Your task to perform on an android device: Search for Mexican restaurants on Maps Image 0: 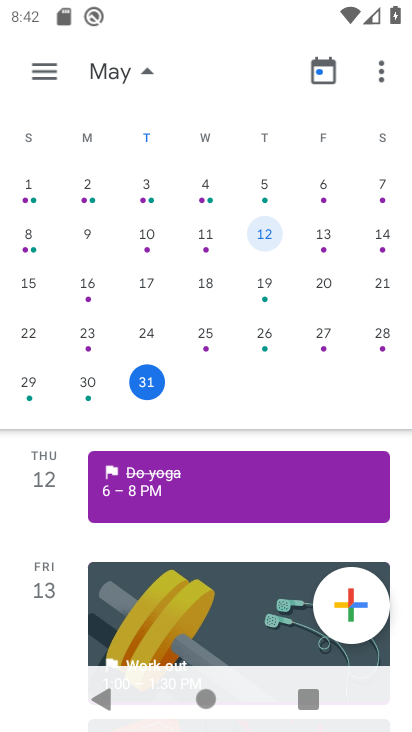
Step 0: press back button
Your task to perform on an android device: Search for Mexican restaurants on Maps Image 1: 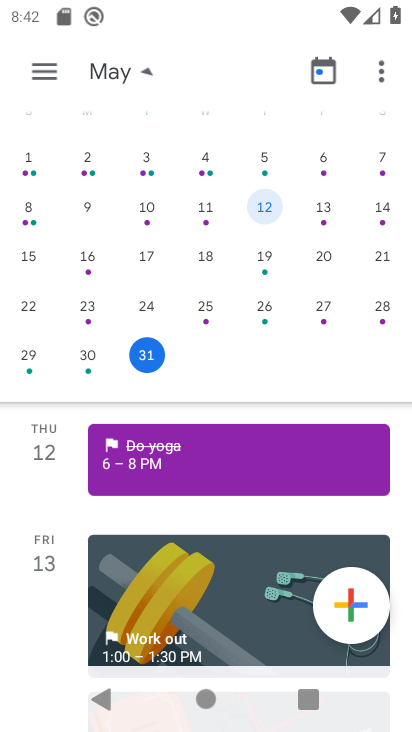
Step 1: press back button
Your task to perform on an android device: Search for Mexican restaurants on Maps Image 2: 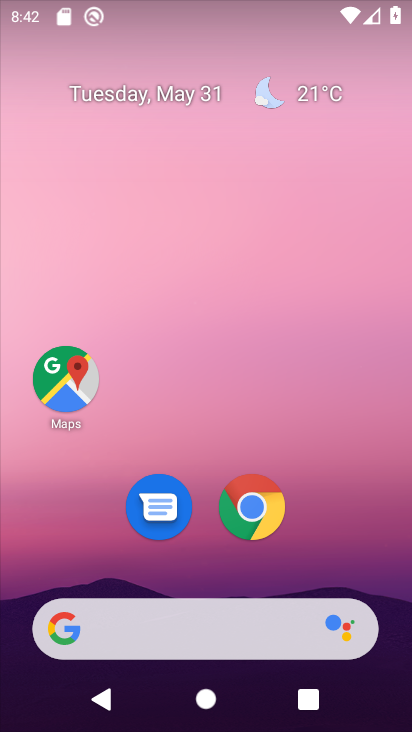
Step 2: drag from (258, 686) to (164, 72)
Your task to perform on an android device: Search for Mexican restaurants on Maps Image 3: 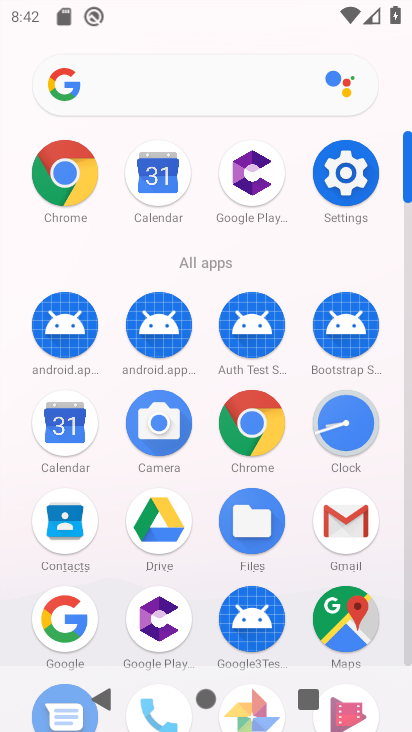
Step 3: click (331, 618)
Your task to perform on an android device: Search for Mexican restaurants on Maps Image 4: 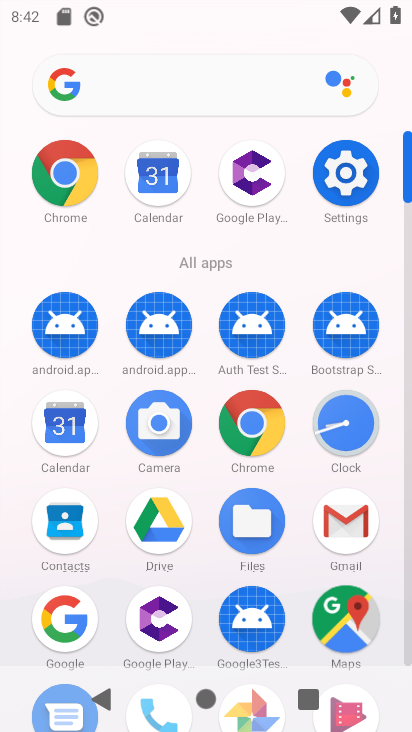
Step 4: click (331, 619)
Your task to perform on an android device: Search for Mexican restaurants on Maps Image 5: 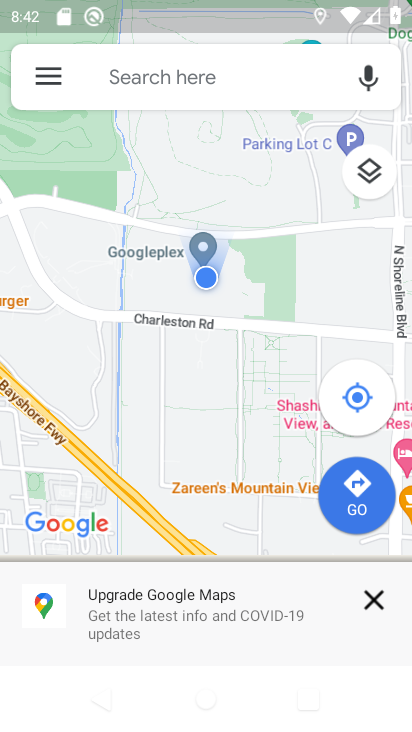
Step 5: click (133, 70)
Your task to perform on an android device: Search for Mexican restaurants on Maps Image 6: 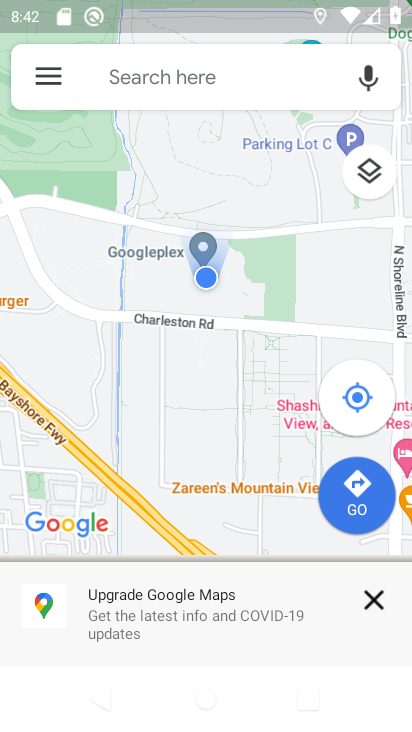
Step 6: click (133, 70)
Your task to perform on an android device: Search for Mexican restaurants on Maps Image 7: 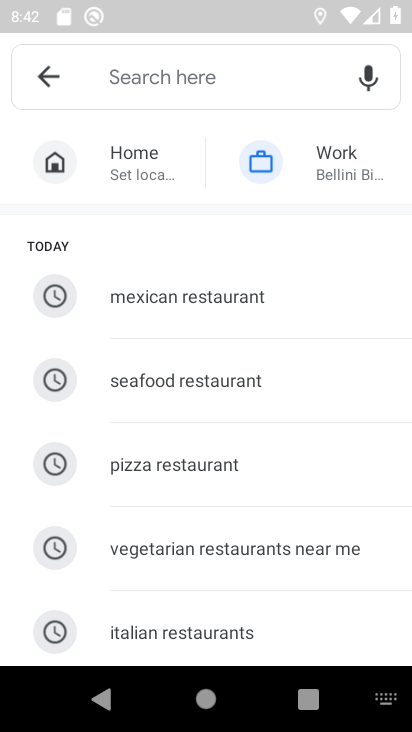
Step 7: click (143, 286)
Your task to perform on an android device: Search for Mexican restaurants on Maps Image 8: 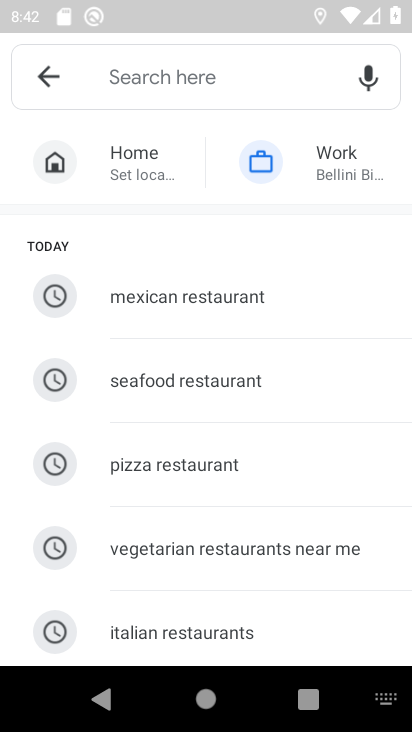
Step 8: click (143, 286)
Your task to perform on an android device: Search for Mexican restaurants on Maps Image 9: 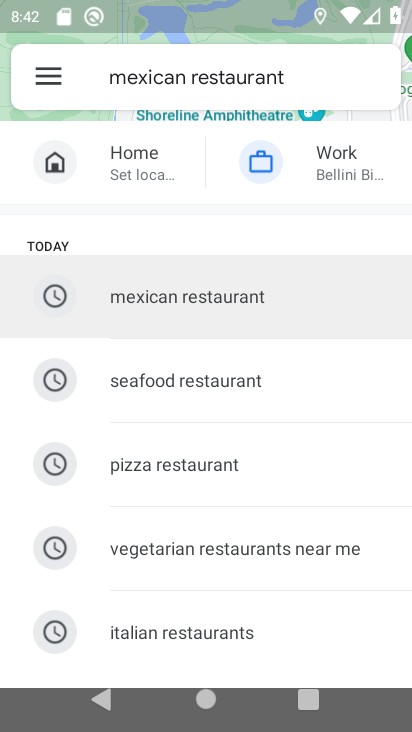
Step 9: click (145, 291)
Your task to perform on an android device: Search for Mexican restaurants on Maps Image 10: 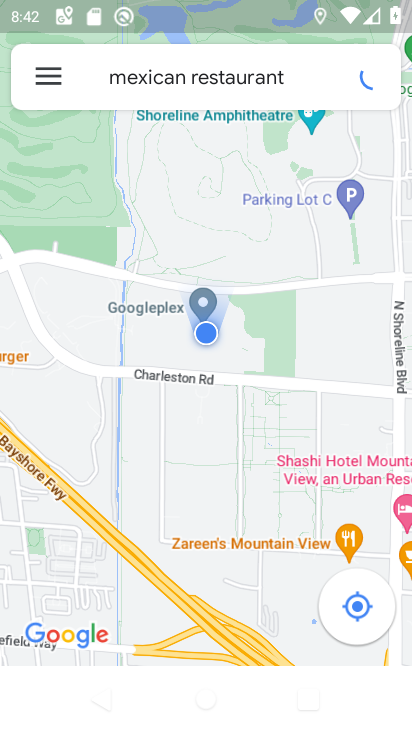
Step 10: task complete